Your task to perform on an android device: change the clock display to analog Image 0: 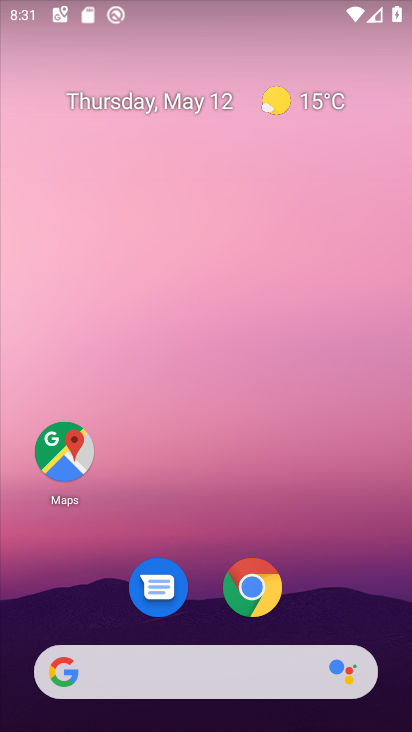
Step 0: drag from (368, 609) to (252, 7)
Your task to perform on an android device: change the clock display to analog Image 1: 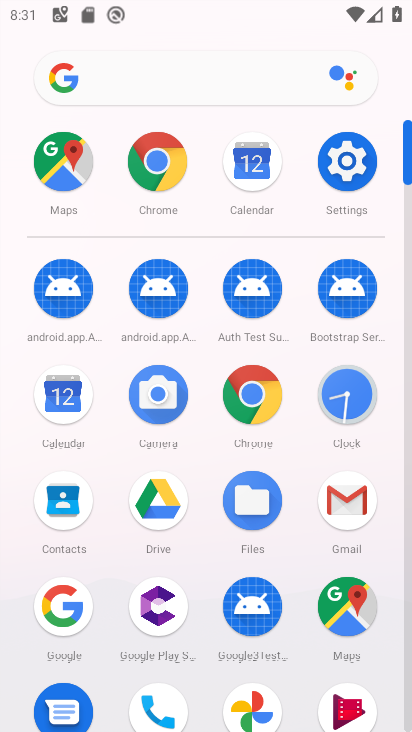
Step 1: click (340, 381)
Your task to perform on an android device: change the clock display to analog Image 2: 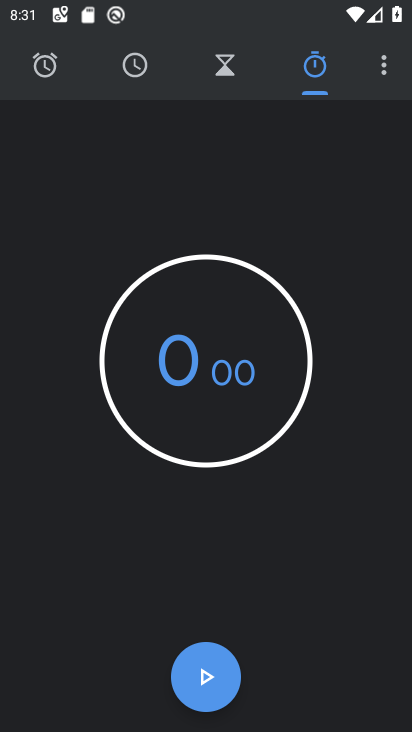
Step 2: click (384, 71)
Your task to perform on an android device: change the clock display to analog Image 3: 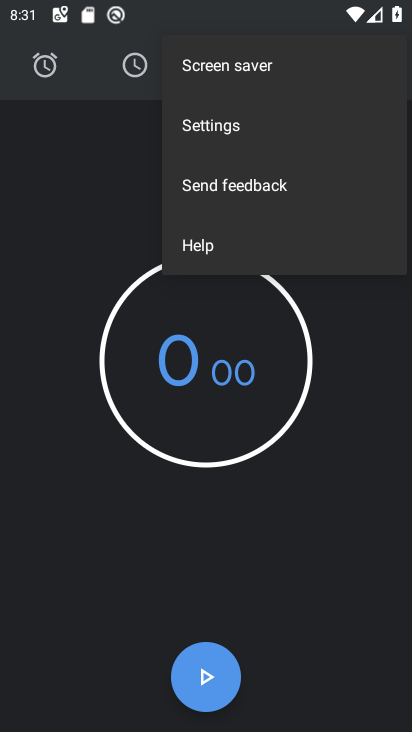
Step 3: click (227, 136)
Your task to perform on an android device: change the clock display to analog Image 4: 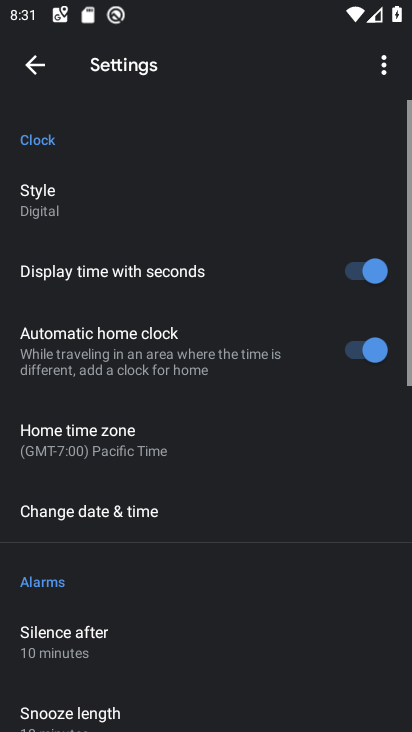
Step 4: click (112, 193)
Your task to perform on an android device: change the clock display to analog Image 5: 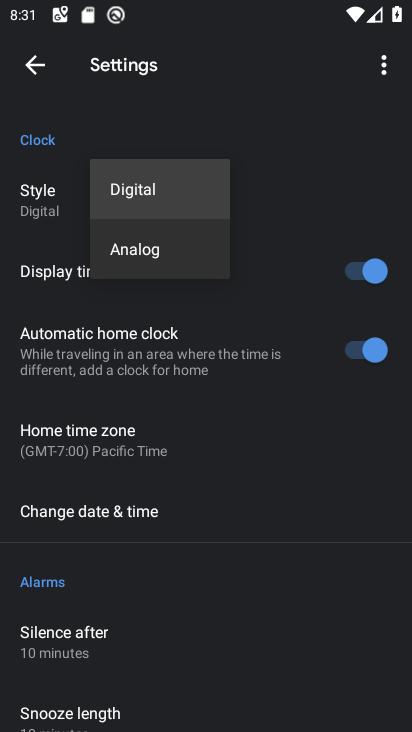
Step 5: click (138, 239)
Your task to perform on an android device: change the clock display to analog Image 6: 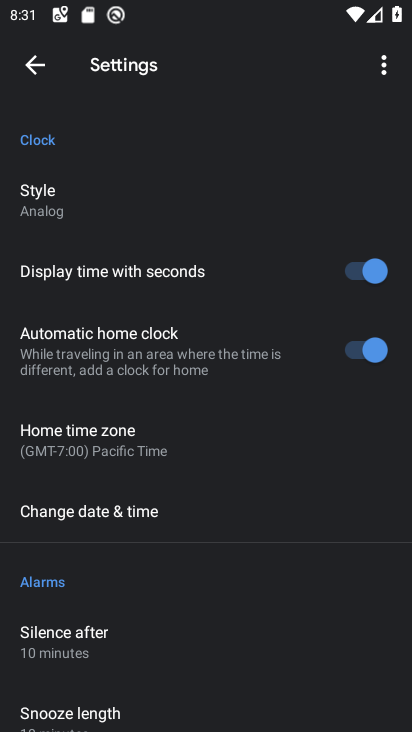
Step 6: task complete